Your task to perform on an android device: open chrome and create a bookmark for the current page Image 0: 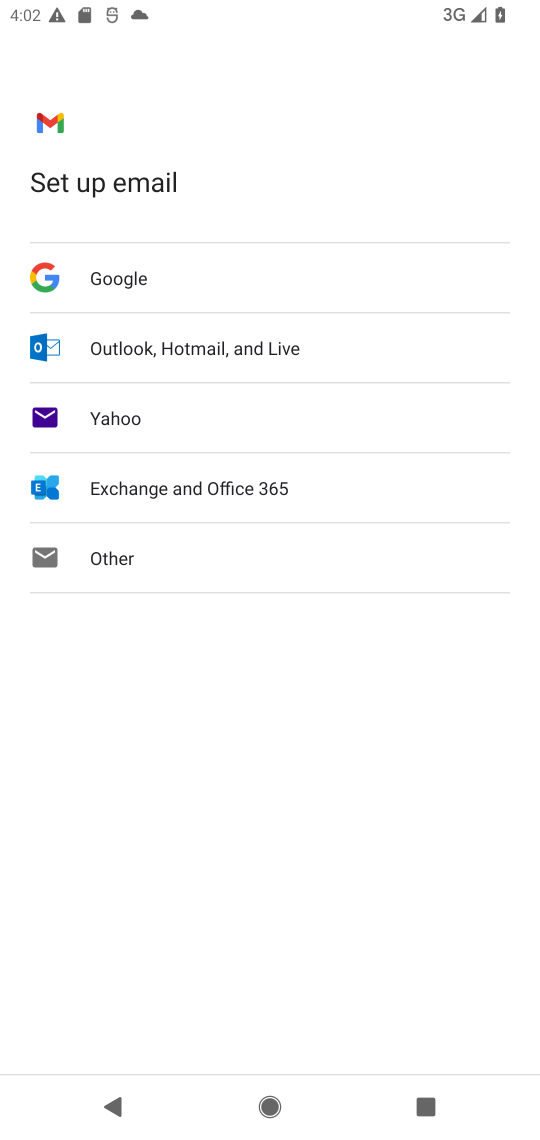
Step 0: press home button
Your task to perform on an android device: open chrome and create a bookmark for the current page Image 1: 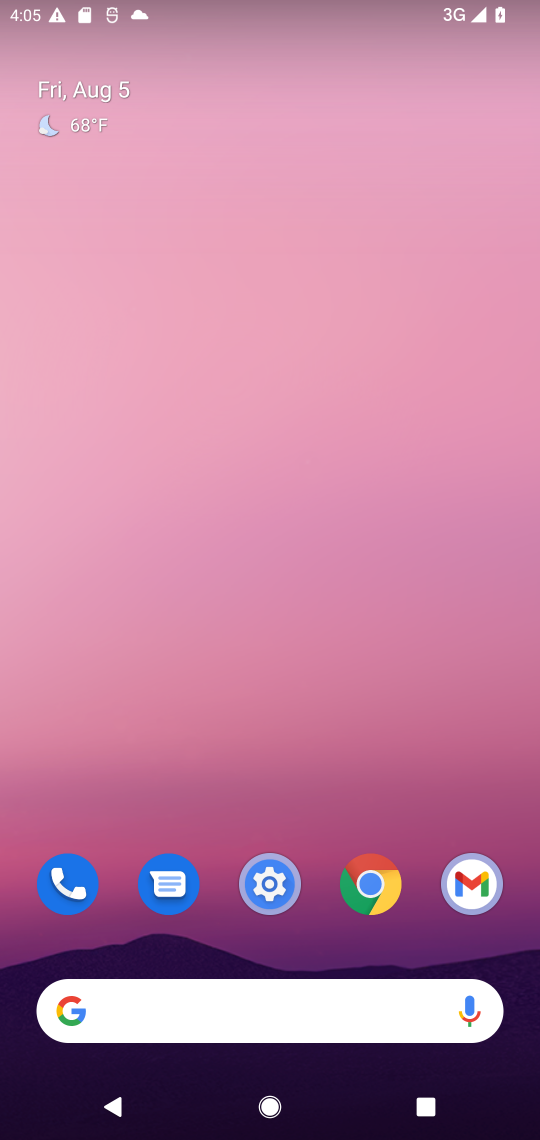
Step 1: drag from (366, 904) to (138, 7)
Your task to perform on an android device: open chrome and create a bookmark for the current page Image 2: 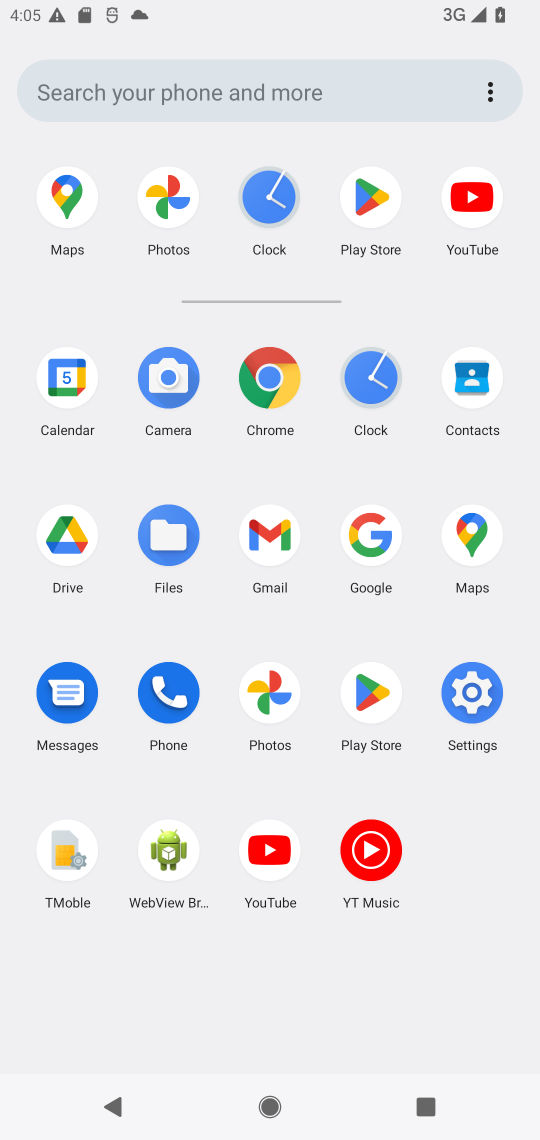
Step 2: click (250, 372)
Your task to perform on an android device: open chrome and create a bookmark for the current page Image 3: 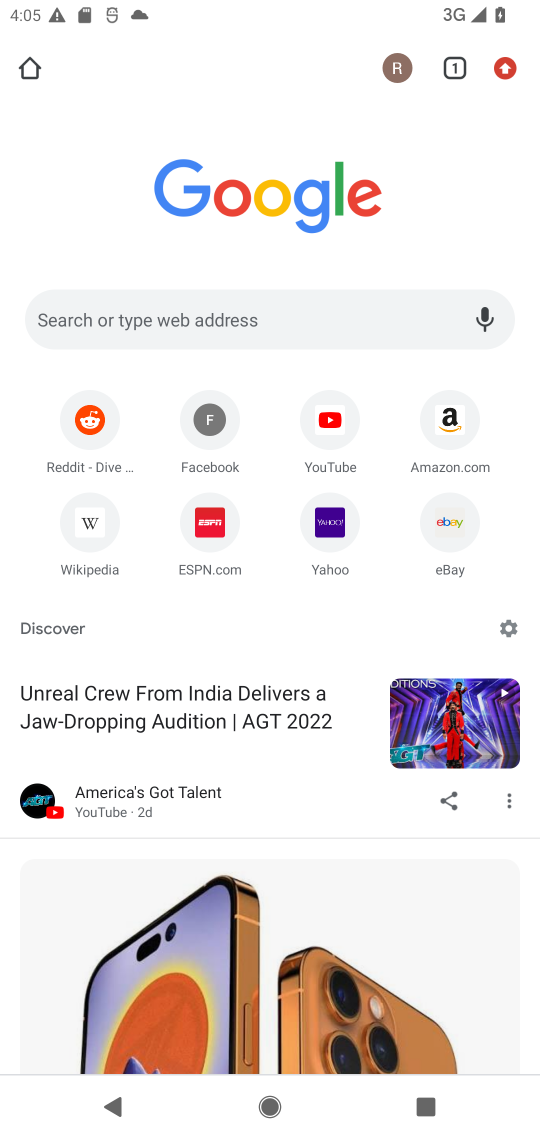
Step 3: click (506, 61)
Your task to perform on an android device: open chrome and create a bookmark for the current page Image 4: 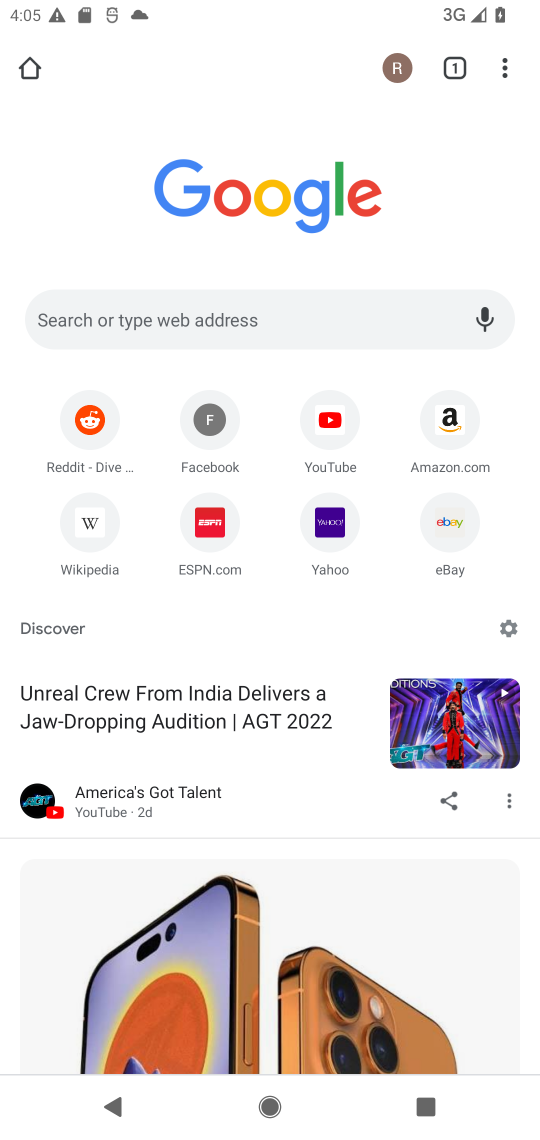
Step 4: task complete